Your task to perform on an android device: open app "Grab" (install if not already installed) Image 0: 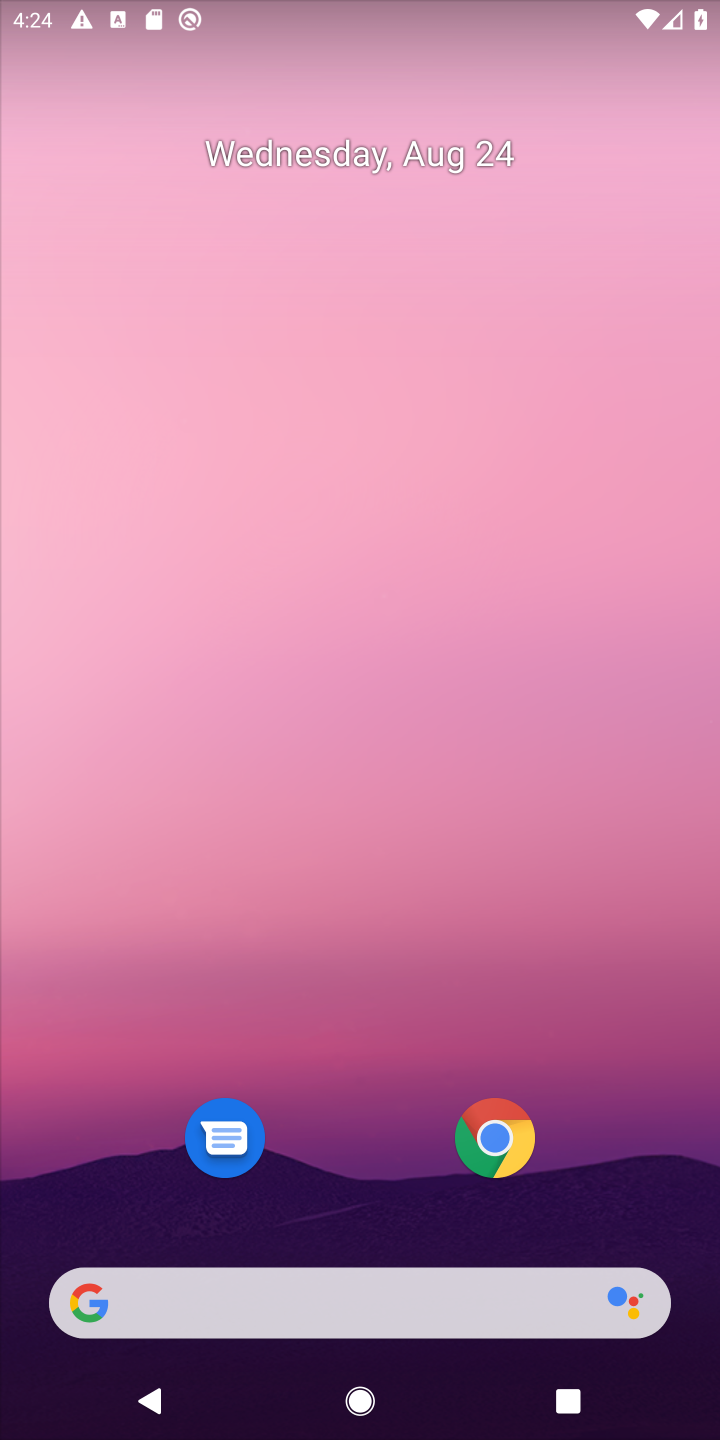
Step 0: drag from (382, 1226) to (432, 156)
Your task to perform on an android device: open app "Grab" (install if not already installed) Image 1: 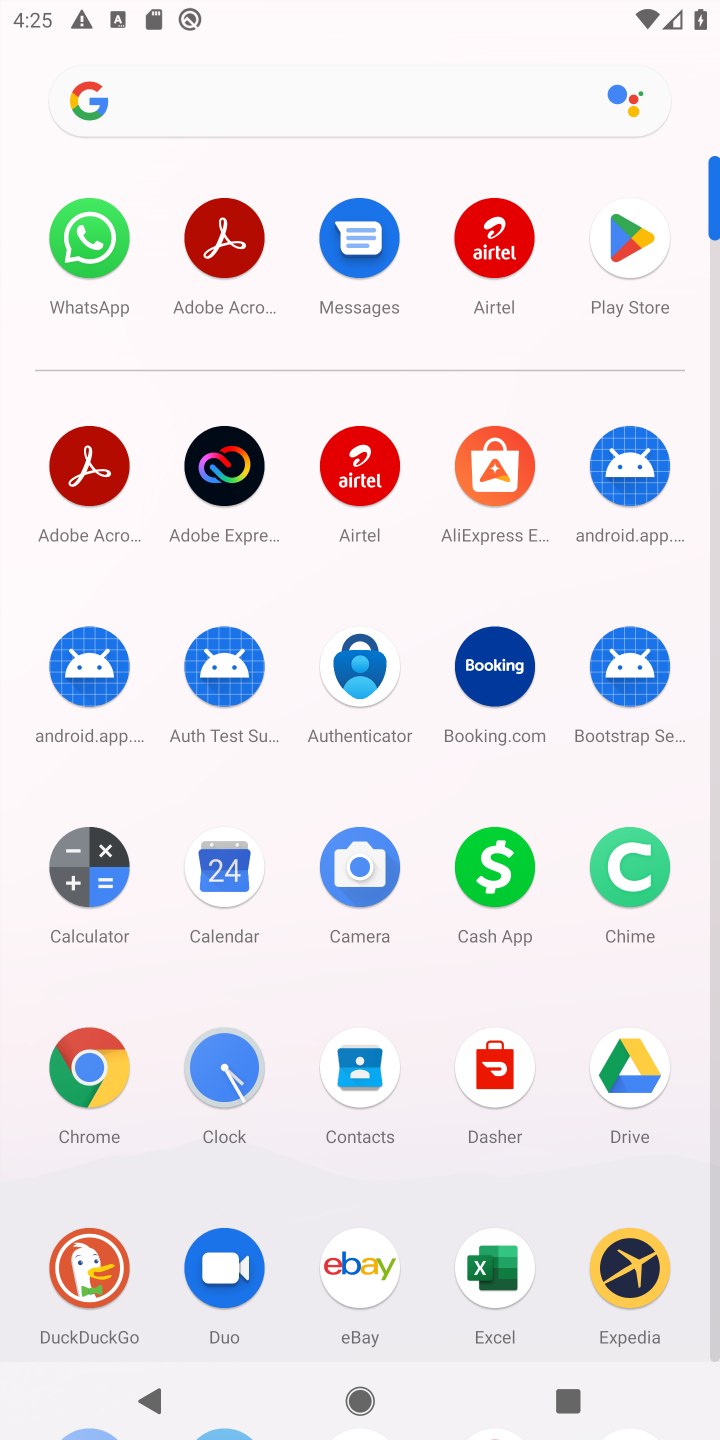
Step 1: click (627, 237)
Your task to perform on an android device: open app "Grab" (install if not already installed) Image 2: 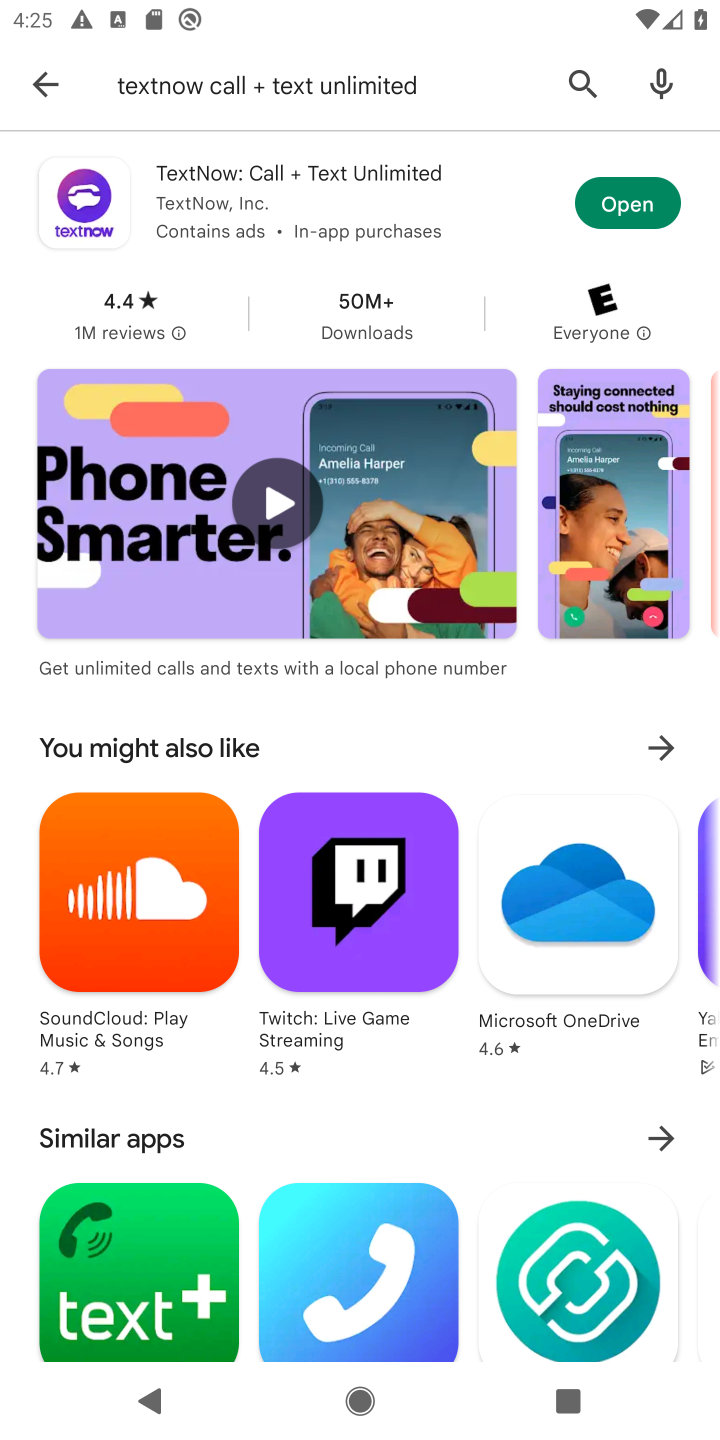
Step 2: click (575, 76)
Your task to perform on an android device: open app "Grab" (install if not already installed) Image 3: 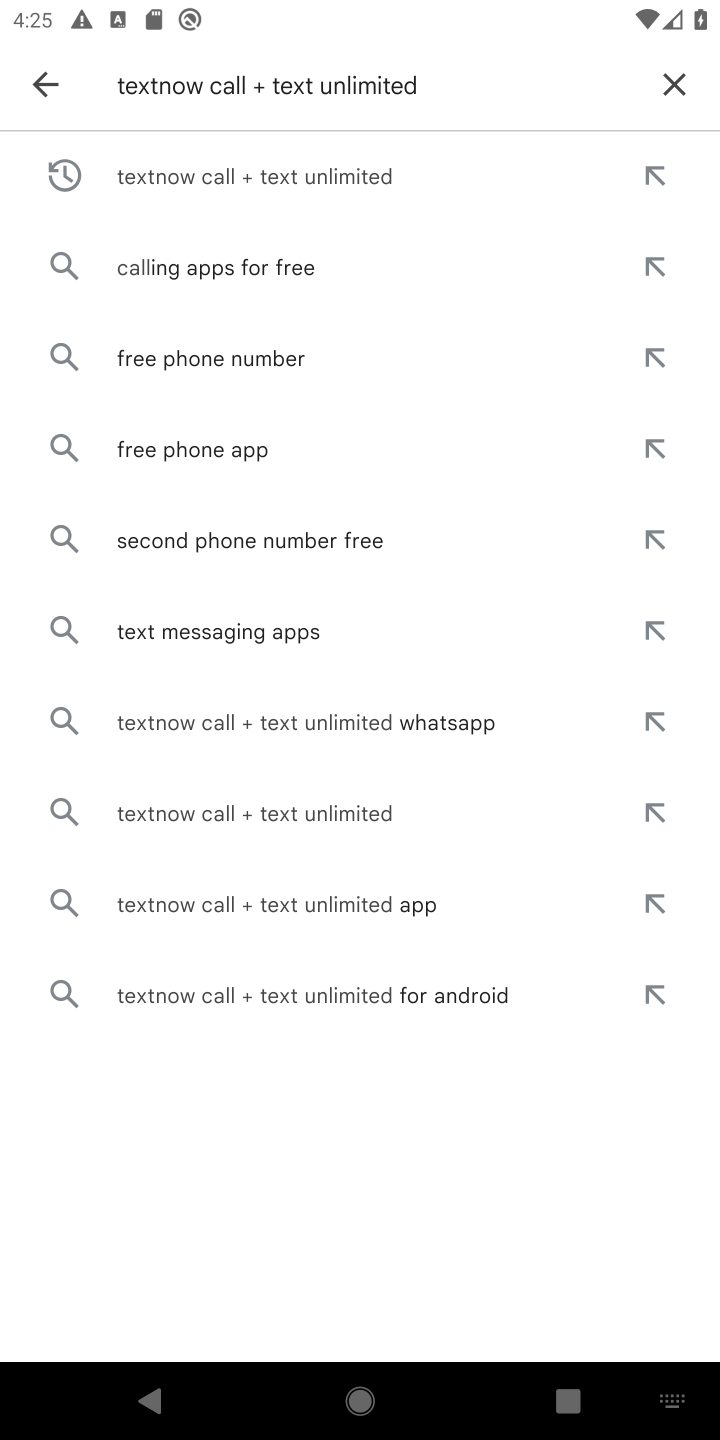
Step 3: click (662, 77)
Your task to perform on an android device: open app "Grab" (install if not already installed) Image 4: 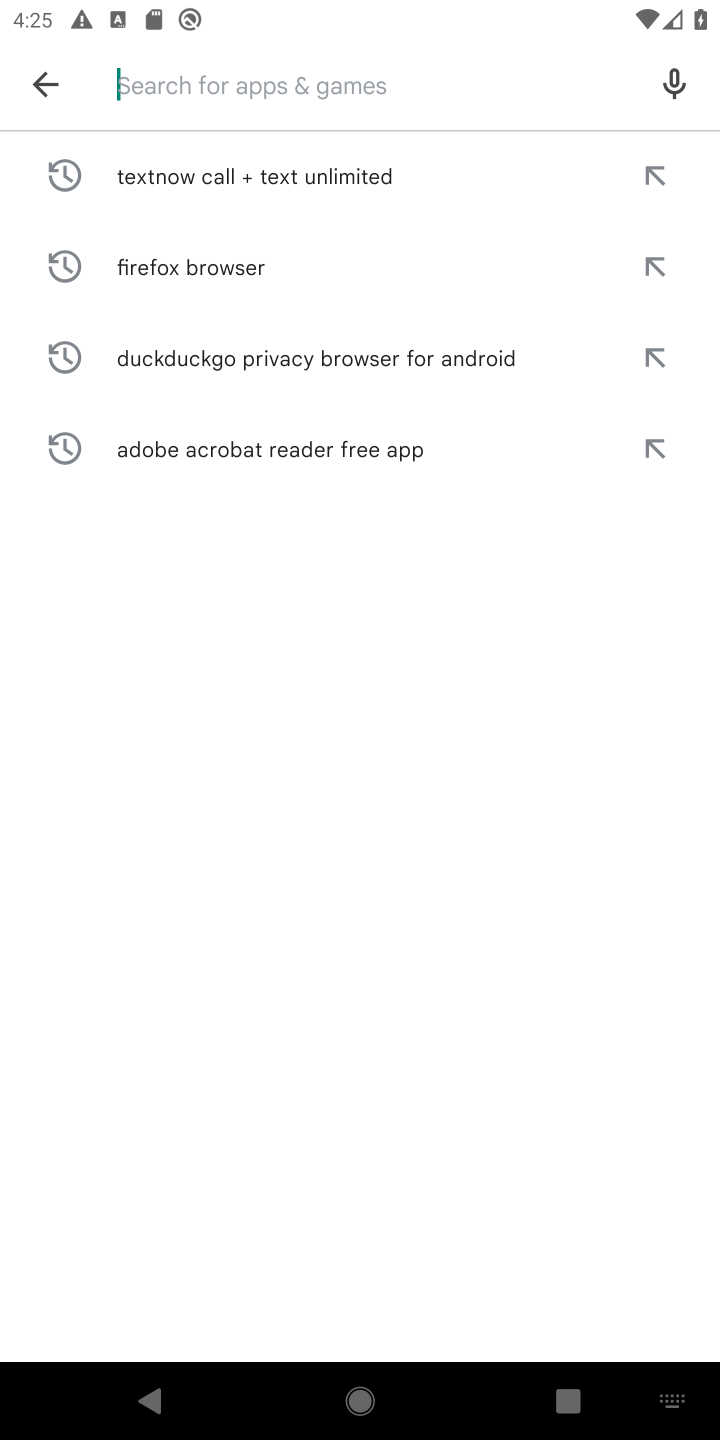
Step 4: type "Grab"
Your task to perform on an android device: open app "Grab" (install if not already installed) Image 5: 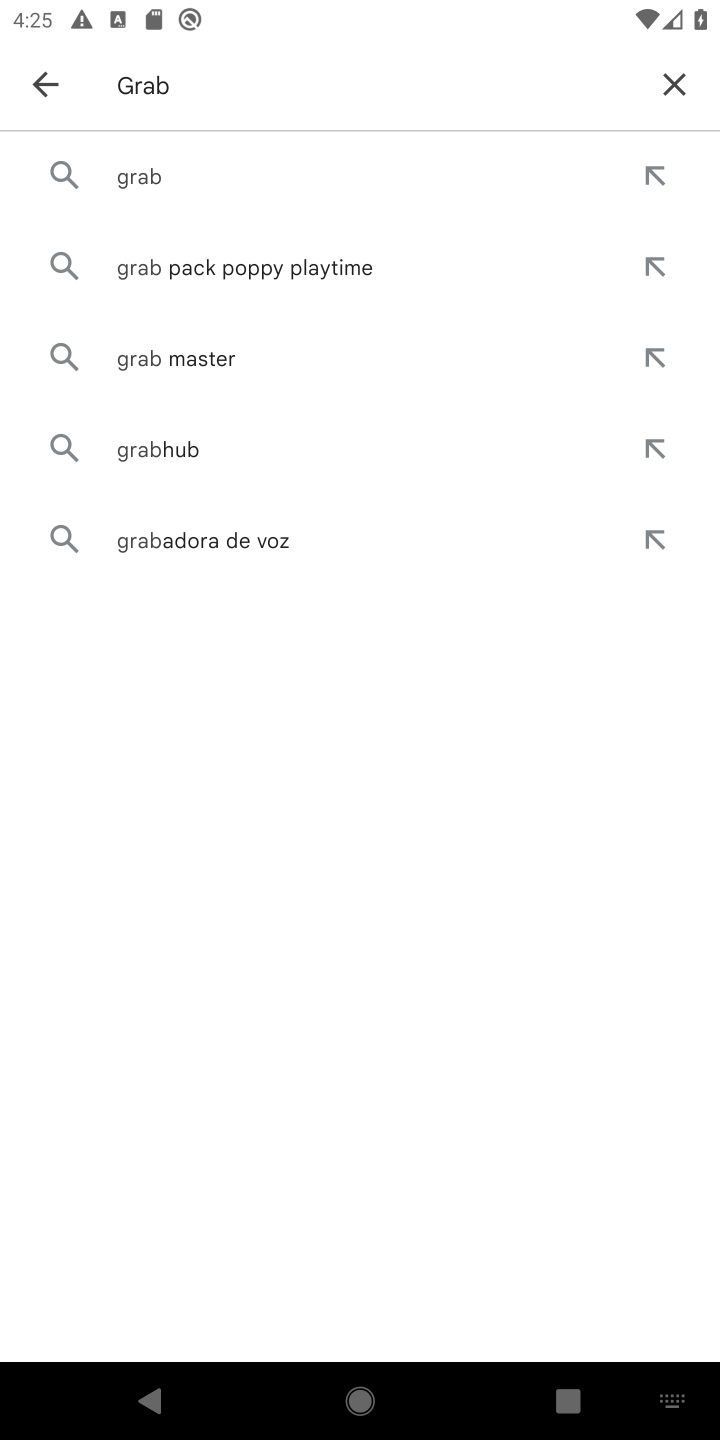
Step 5: click (139, 171)
Your task to perform on an android device: open app "Grab" (install if not already installed) Image 6: 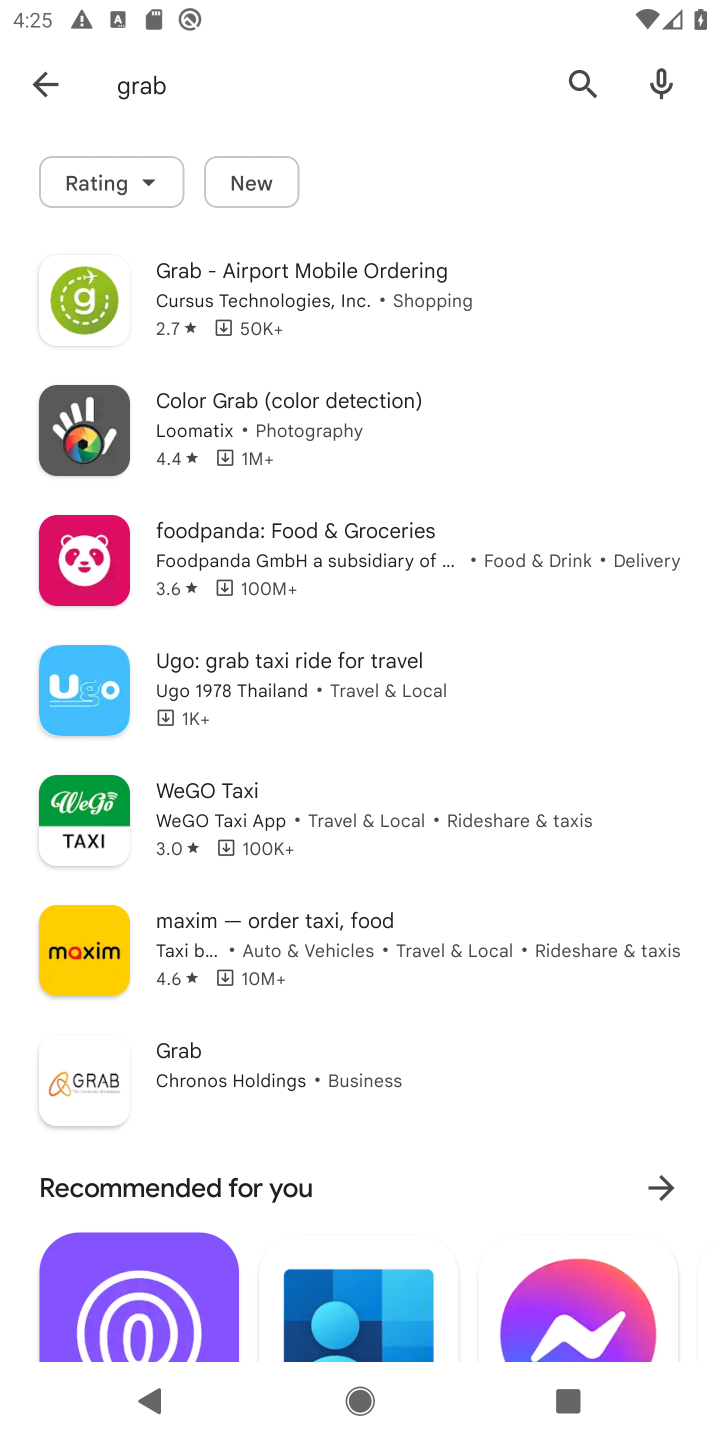
Step 6: click (288, 274)
Your task to perform on an android device: open app "Grab" (install if not already installed) Image 7: 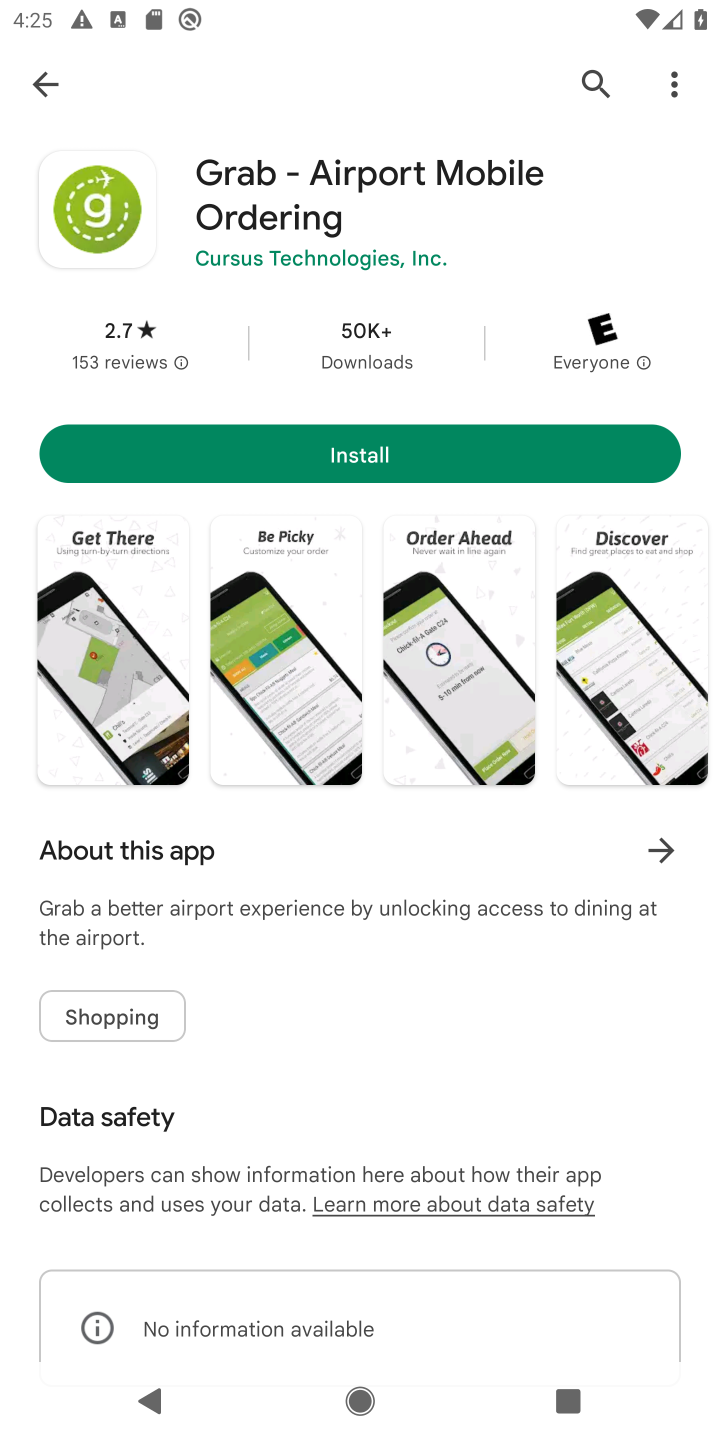
Step 7: click (371, 458)
Your task to perform on an android device: open app "Grab" (install if not already installed) Image 8: 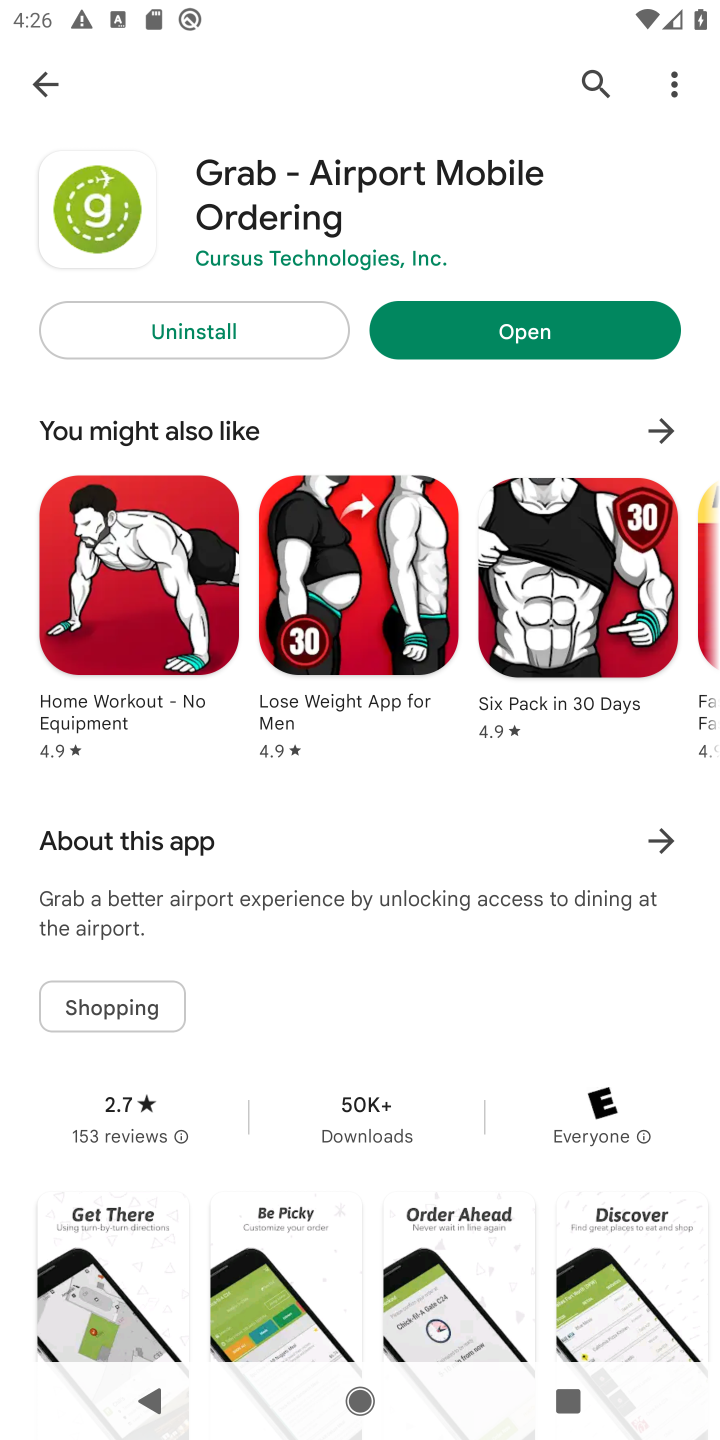
Step 8: task complete